Your task to perform on an android device: star an email in the gmail app Image 0: 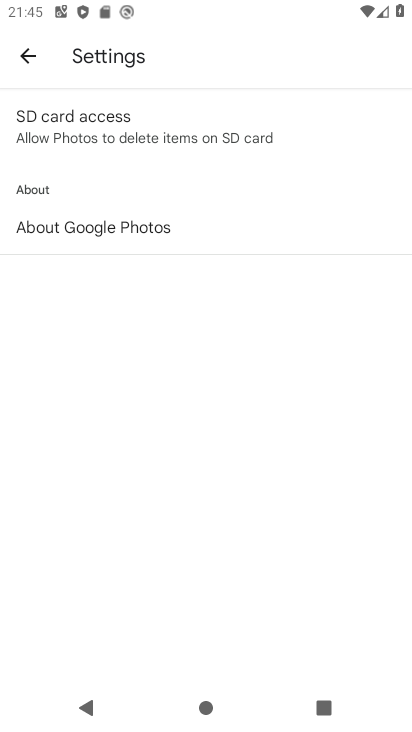
Step 0: press home button
Your task to perform on an android device: star an email in the gmail app Image 1: 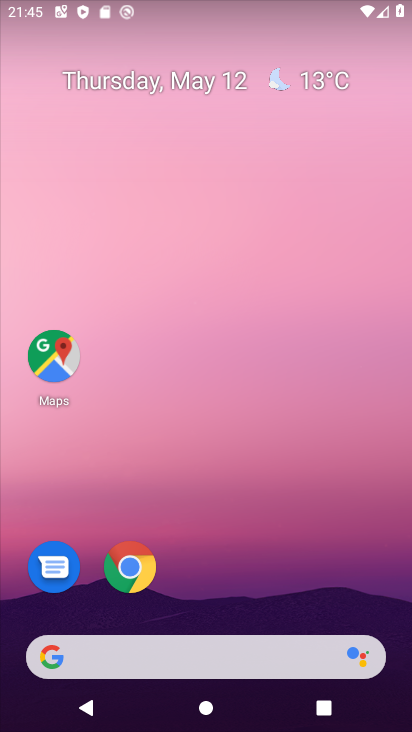
Step 1: drag from (217, 616) to (224, 99)
Your task to perform on an android device: star an email in the gmail app Image 2: 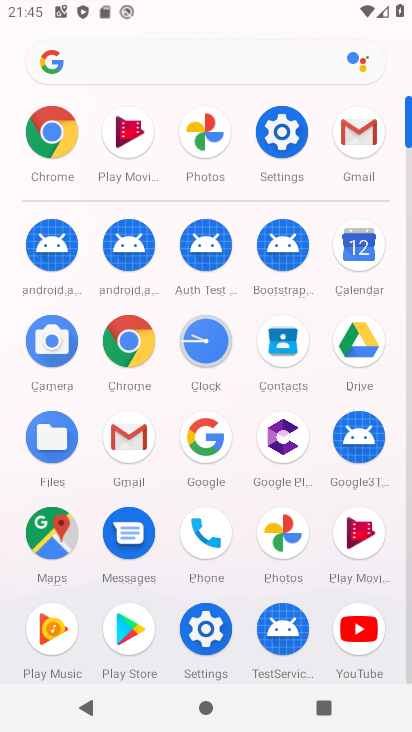
Step 2: click (358, 121)
Your task to perform on an android device: star an email in the gmail app Image 3: 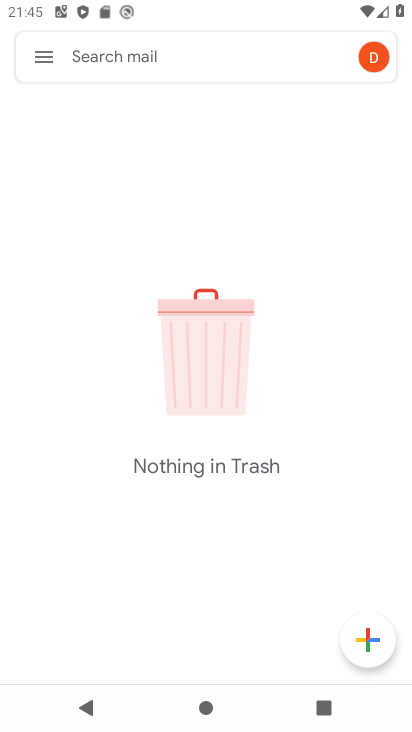
Step 3: press home button
Your task to perform on an android device: star an email in the gmail app Image 4: 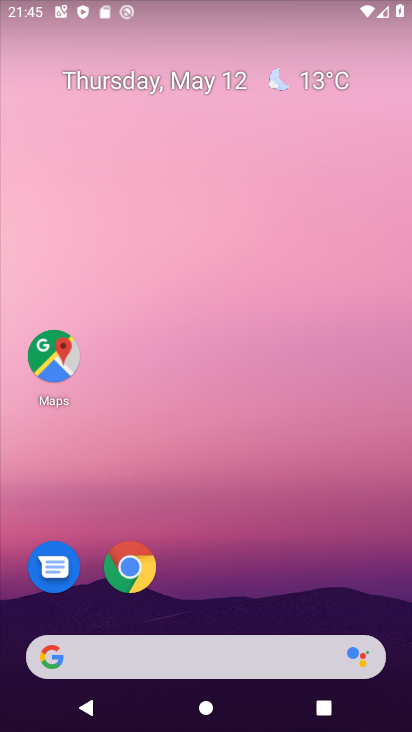
Step 4: drag from (228, 610) to (221, 63)
Your task to perform on an android device: star an email in the gmail app Image 5: 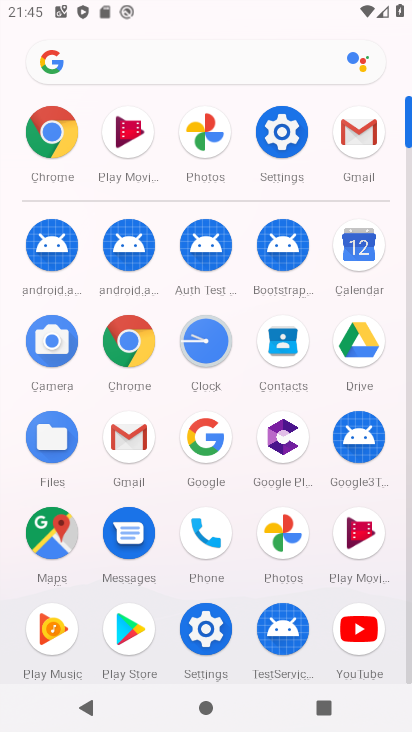
Step 5: click (358, 127)
Your task to perform on an android device: star an email in the gmail app Image 6: 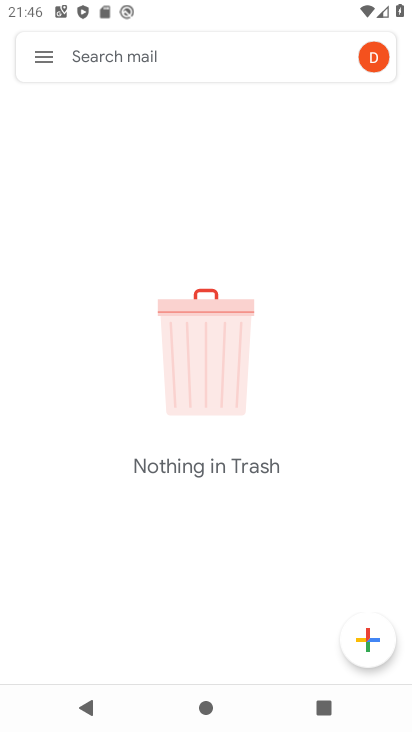
Step 6: click (44, 48)
Your task to perform on an android device: star an email in the gmail app Image 7: 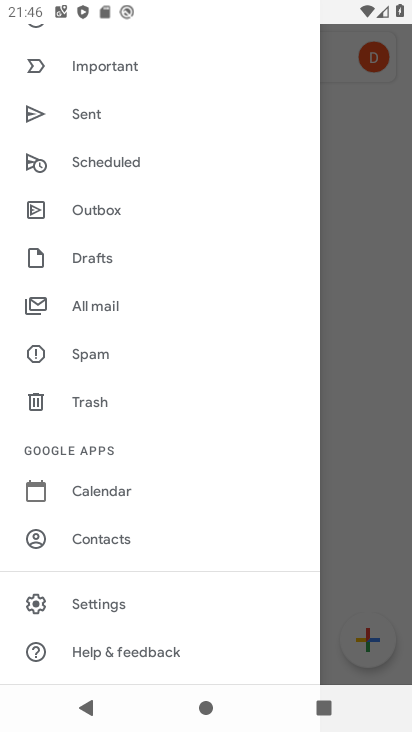
Step 7: click (384, 227)
Your task to perform on an android device: star an email in the gmail app Image 8: 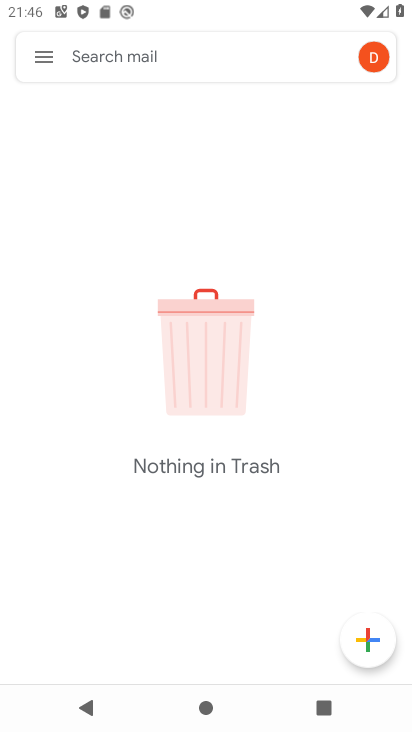
Step 8: task complete